Your task to perform on an android device: toggle javascript in the chrome app Image 0: 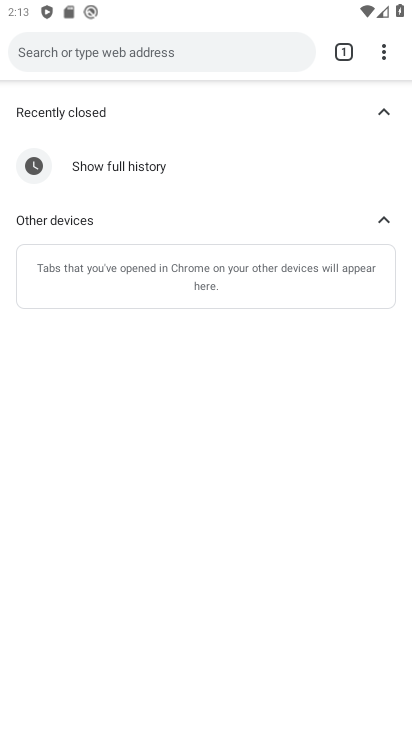
Step 0: click (383, 53)
Your task to perform on an android device: toggle javascript in the chrome app Image 1: 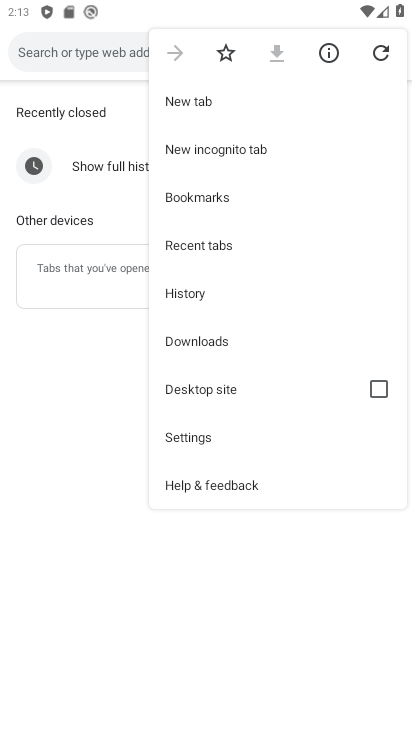
Step 1: click (186, 437)
Your task to perform on an android device: toggle javascript in the chrome app Image 2: 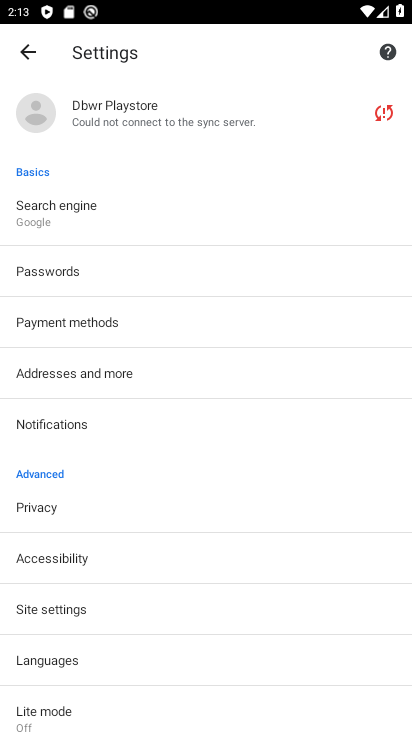
Step 2: click (61, 606)
Your task to perform on an android device: toggle javascript in the chrome app Image 3: 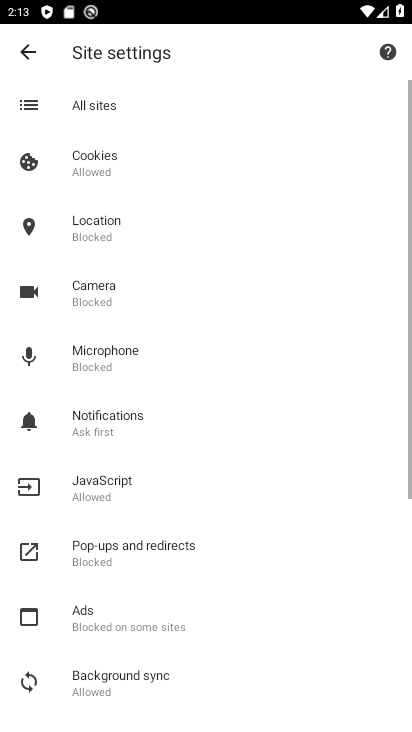
Step 3: click (95, 486)
Your task to perform on an android device: toggle javascript in the chrome app Image 4: 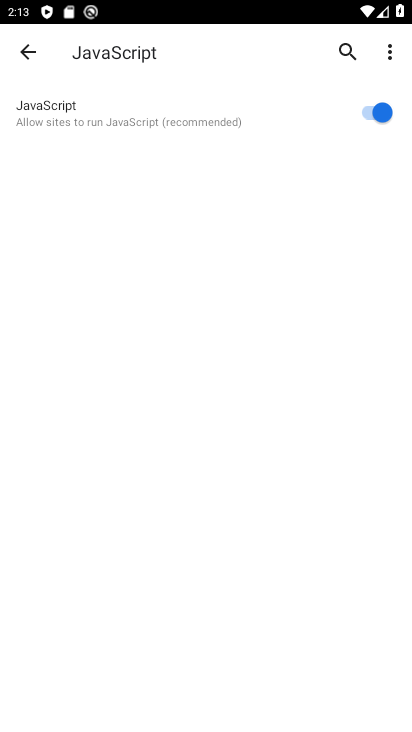
Step 4: click (386, 114)
Your task to perform on an android device: toggle javascript in the chrome app Image 5: 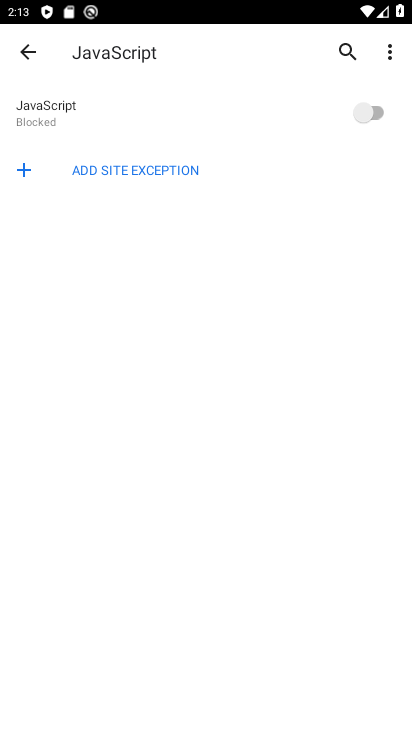
Step 5: task complete